Your task to perform on an android device: allow cookies in the chrome app Image 0: 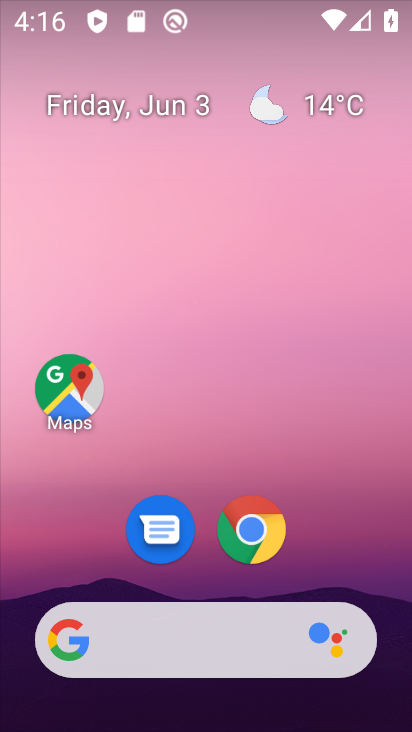
Step 0: drag from (346, 402) to (354, 0)
Your task to perform on an android device: allow cookies in the chrome app Image 1: 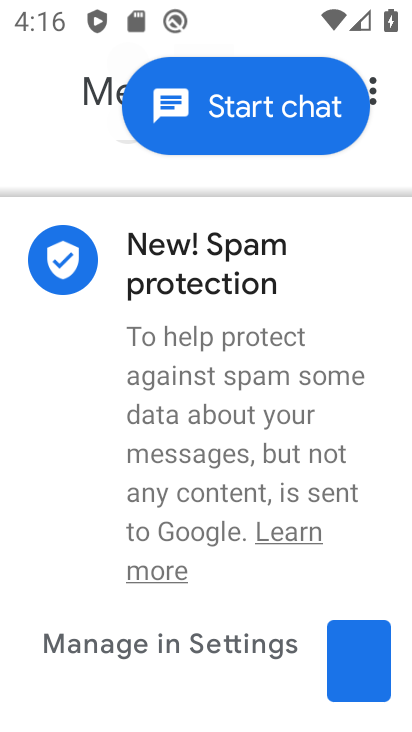
Step 1: press home button
Your task to perform on an android device: allow cookies in the chrome app Image 2: 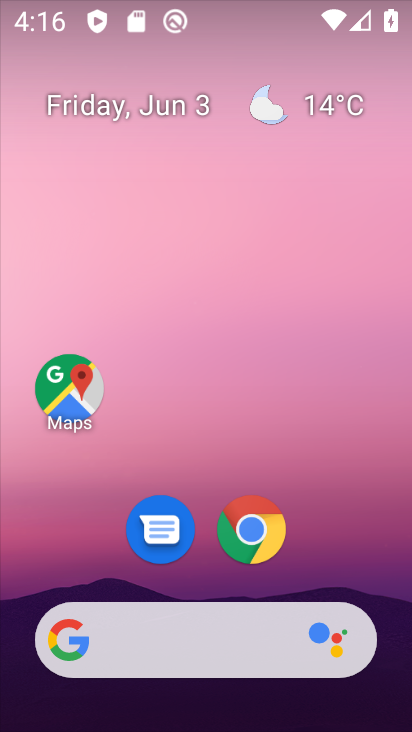
Step 2: drag from (319, 498) to (275, 2)
Your task to perform on an android device: allow cookies in the chrome app Image 3: 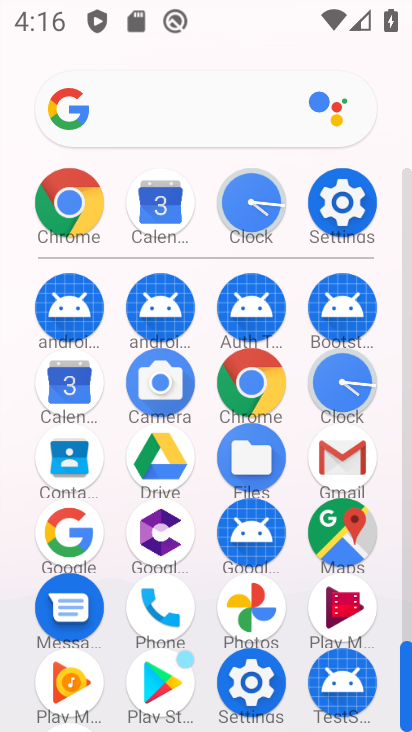
Step 3: click (71, 256)
Your task to perform on an android device: allow cookies in the chrome app Image 4: 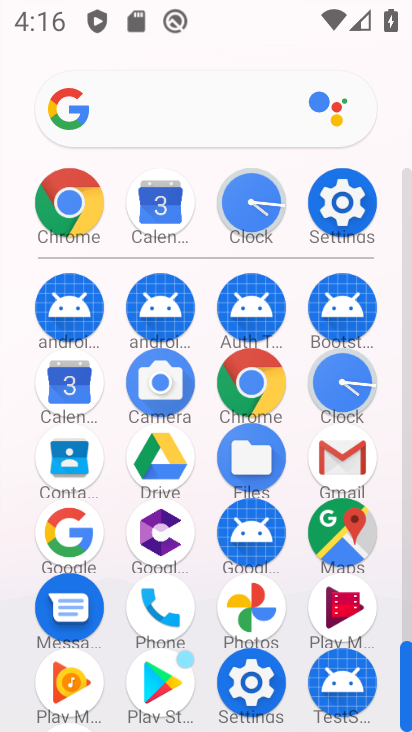
Step 4: click (70, 191)
Your task to perform on an android device: allow cookies in the chrome app Image 5: 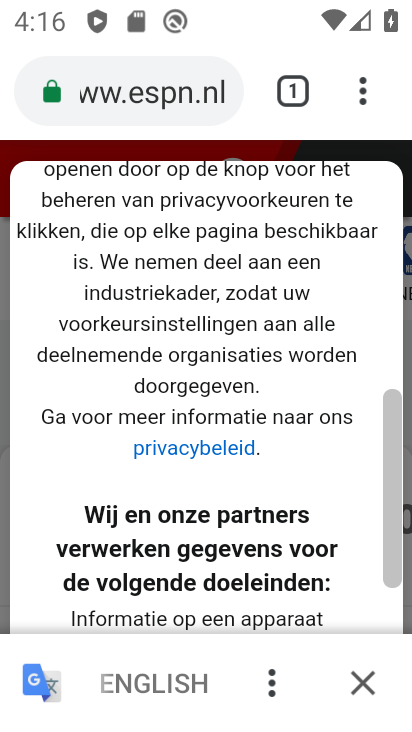
Step 5: drag from (360, 88) to (92, 576)
Your task to perform on an android device: allow cookies in the chrome app Image 6: 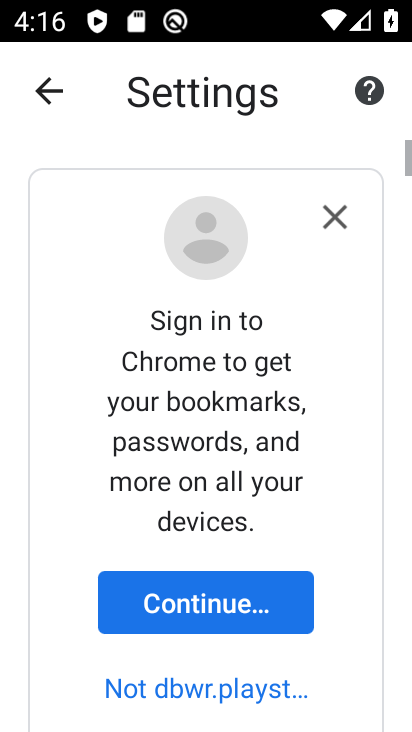
Step 6: click (339, 269)
Your task to perform on an android device: allow cookies in the chrome app Image 7: 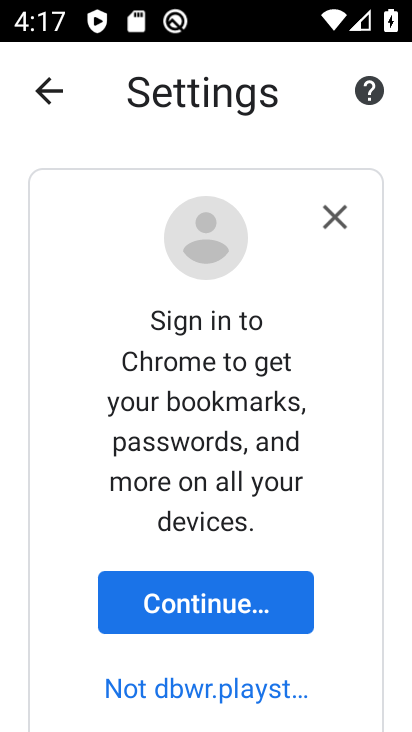
Step 7: drag from (232, 624) to (200, 223)
Your task to perform on an android device: allow cookies in the chrome app Image 8: 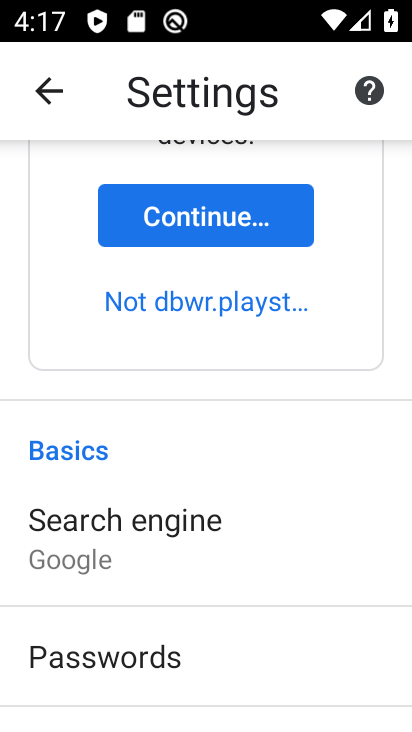
Step 8: drag from (230, 646) to (254, 191)
Your task to perform on an android device: allow cookies in the chrome app Image 9: 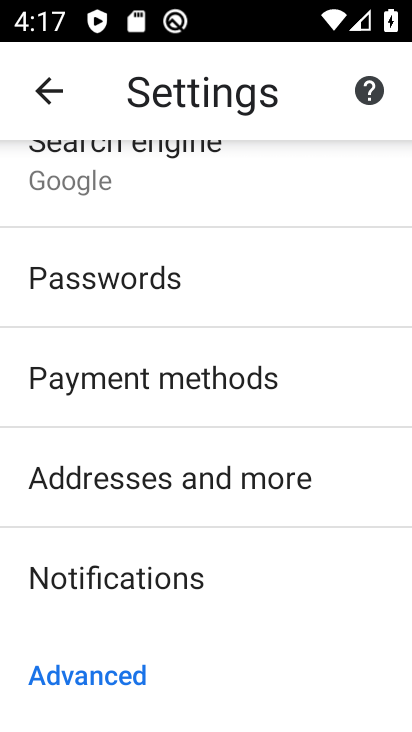
Step 9: drag from (244, 602) to (243, 265)
Your task to perform on an android device: allow cookies in the chrome app Image 10: 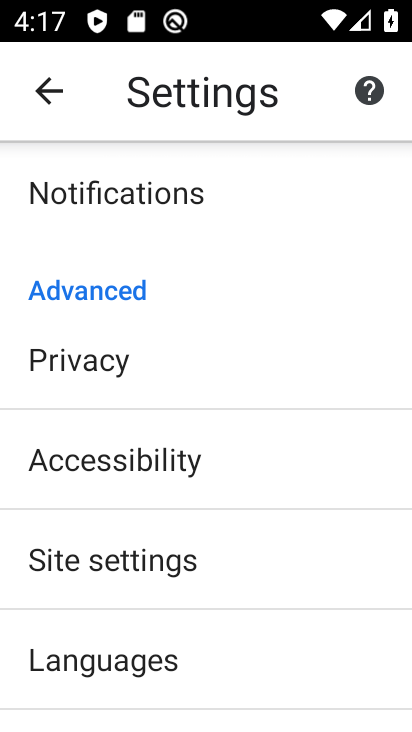
Step 10: click (173, 546)
Your task to perform on an android device: allow cookies in the chrome app Image 11: 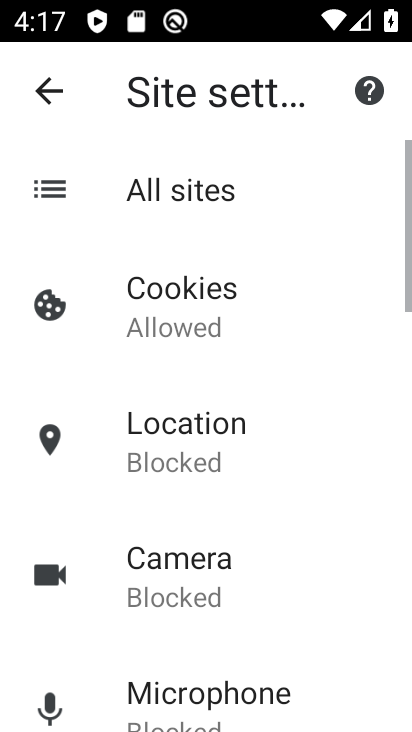
Step 11: task complete